Your task to perform on an android device: allow notifications from all sites in the chrome app Image 0: 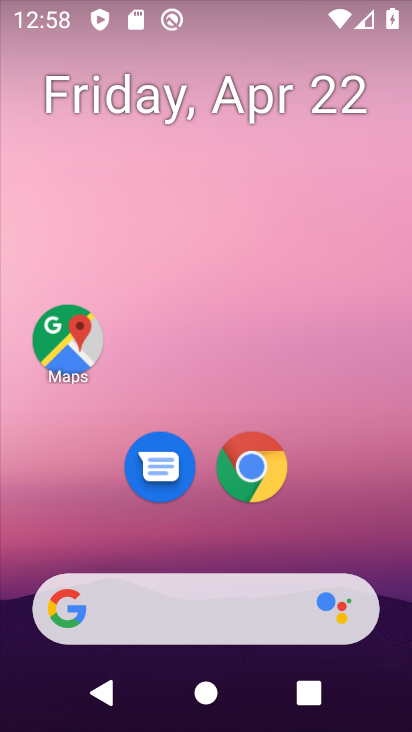
Step 0: drag from (209, 537) to (257, 18)
Your task to perform on an android device: allow notifications from all sites in the chrome app Image 1: 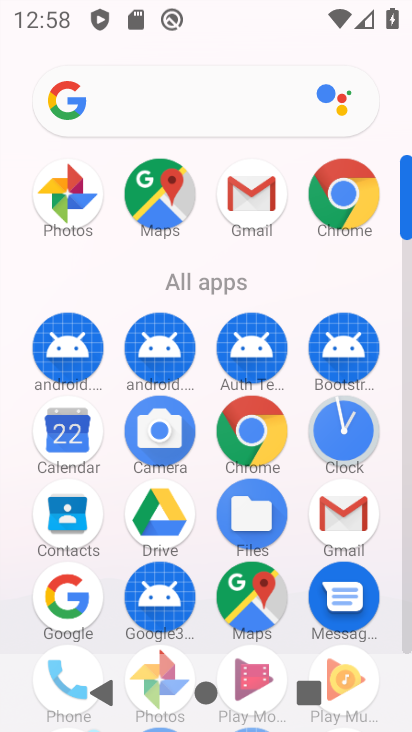
Step 1: click (251, 427)
Your task to perform on an android device: allow notifications from all sites in the chrome app Image 2: 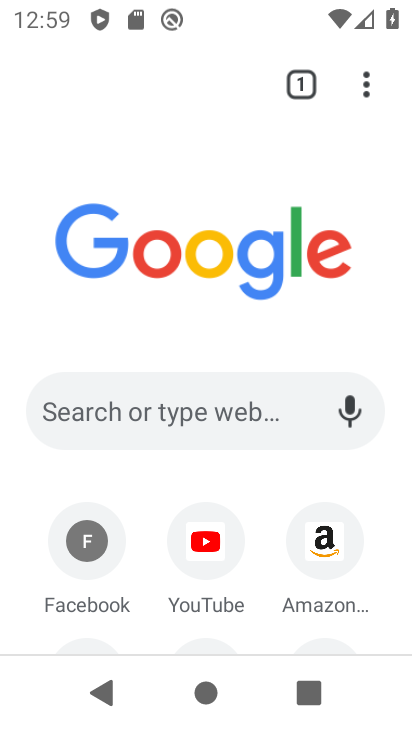
Step 2: click (366, 80)
Your task to perform on an android device: allow notifications from all sites in the chrome app Image 3: 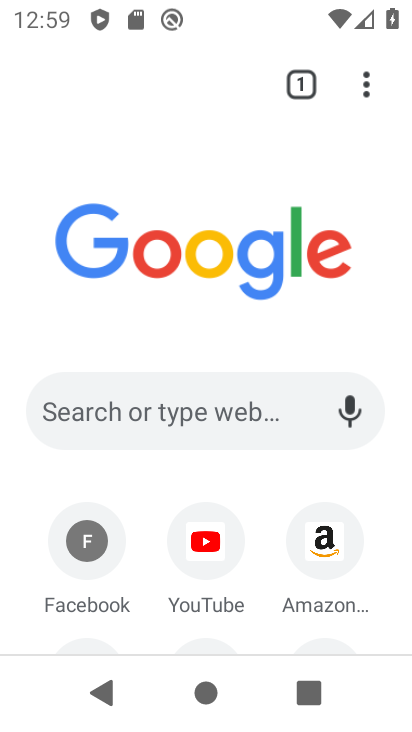
Step 3: click (365, 82)
Your task to perform on an android device: allow notifications from all sites in the chrome app Image 4: 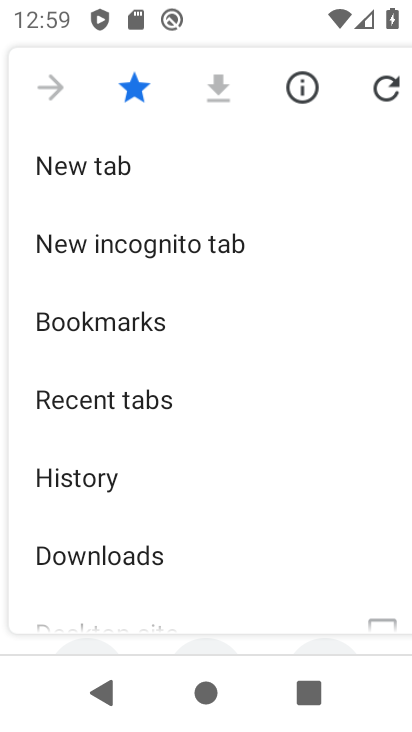
Step 4: drag from (185, 562) to (205, 103)
Your task to perform on an android device: allow notifications from all sites in the chrome app Image 5: 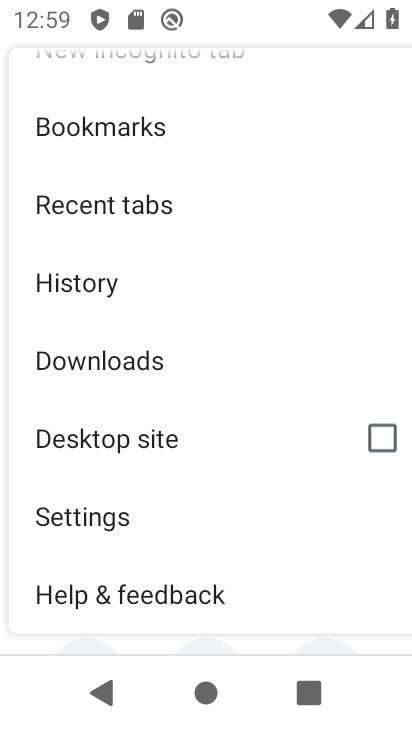
Step 5: click (141, 512)
Your task to perform on an android device: allow notifications from all sites in the chrome app Image 6: 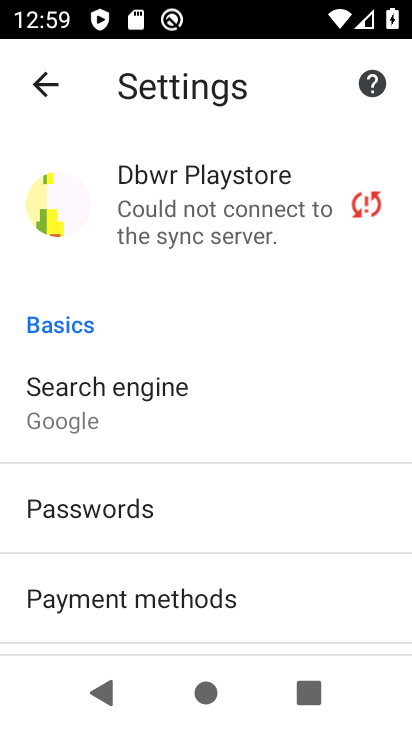
Step 6: drag from (205, 598) to (211, 266)
Your task to perform on an android device: allow notifications from all sites in the chrome app Image 7: 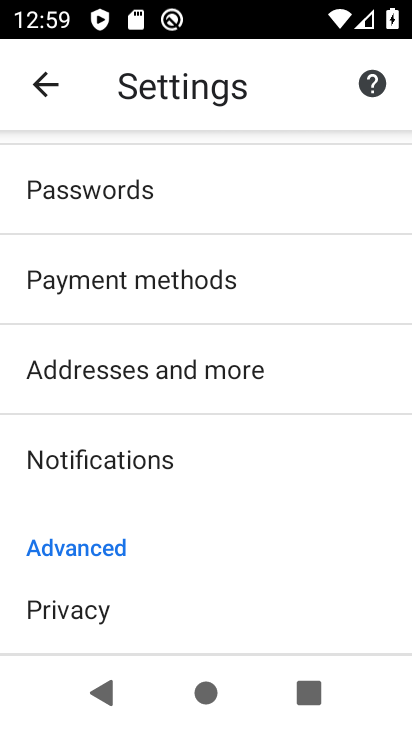
Step 7: drag from (179, 612) to (221, 196)
Your task to perform on an android device: allow notifications from all sites in the chrome app Image 8: 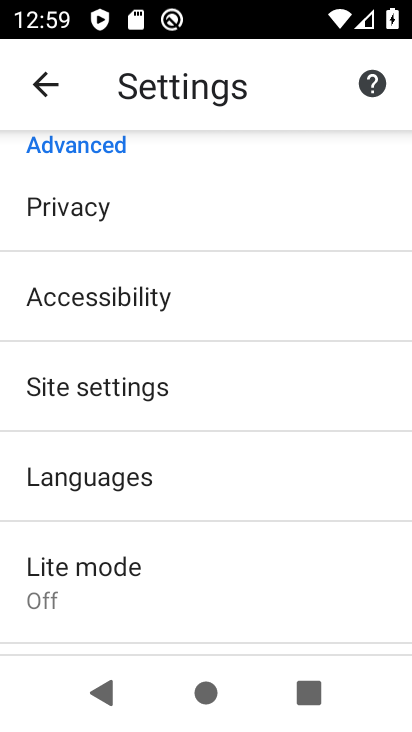
Step 8: click (176, 394)
Your task to perform on an android device: allow notifications from all sites in the chrome app Image 9: 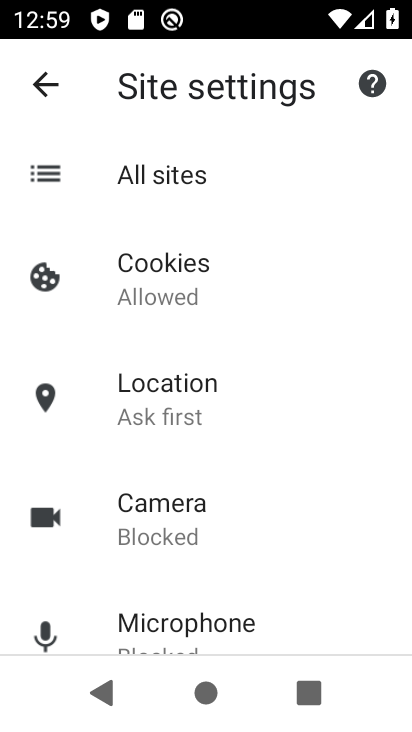
Step 9: click (92, 171)
Your task to perform on an android device: allow notifications from all sites in the chrome app Image 10: 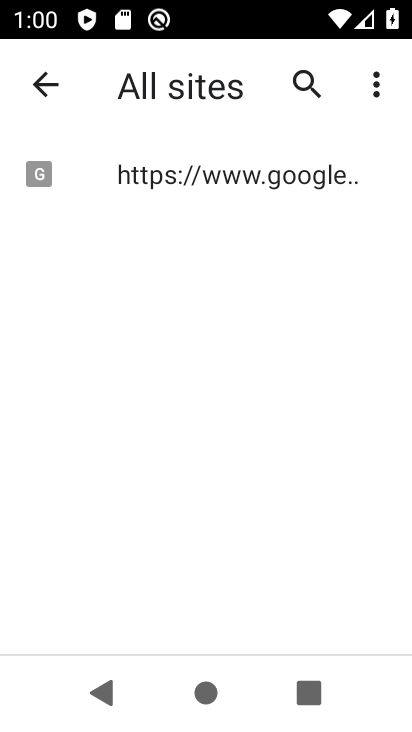
Step 10: click (87, 170)
Your task to perform on an android device: allow notifications from all sites in the chrome app Image 11: 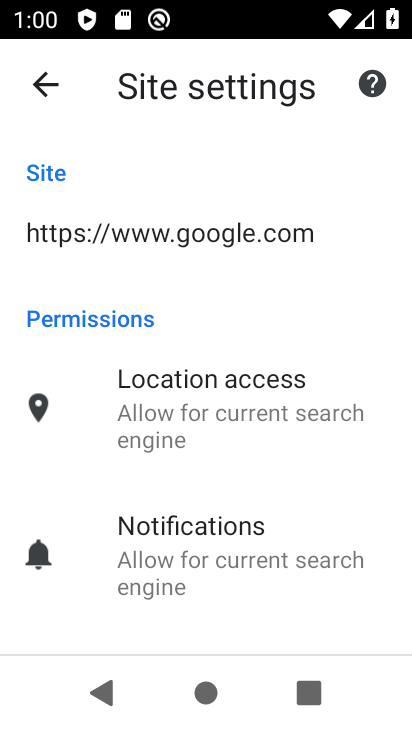
Step 11: task complete